Your task to perform on an android device: Google the capital of Colombia Image 0: 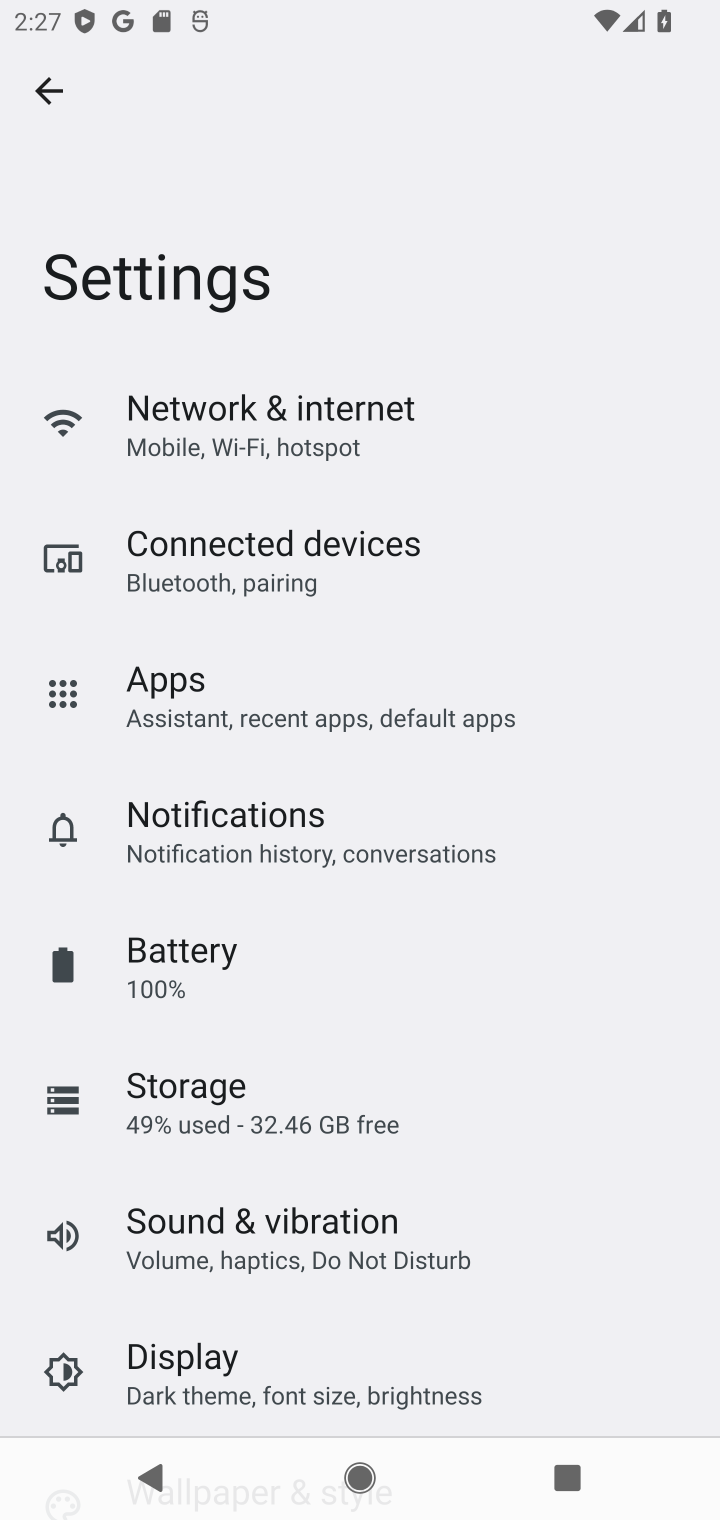
Step 0: press home button
Your task to perform on an android device: Google the capital of Colombia Image 1: 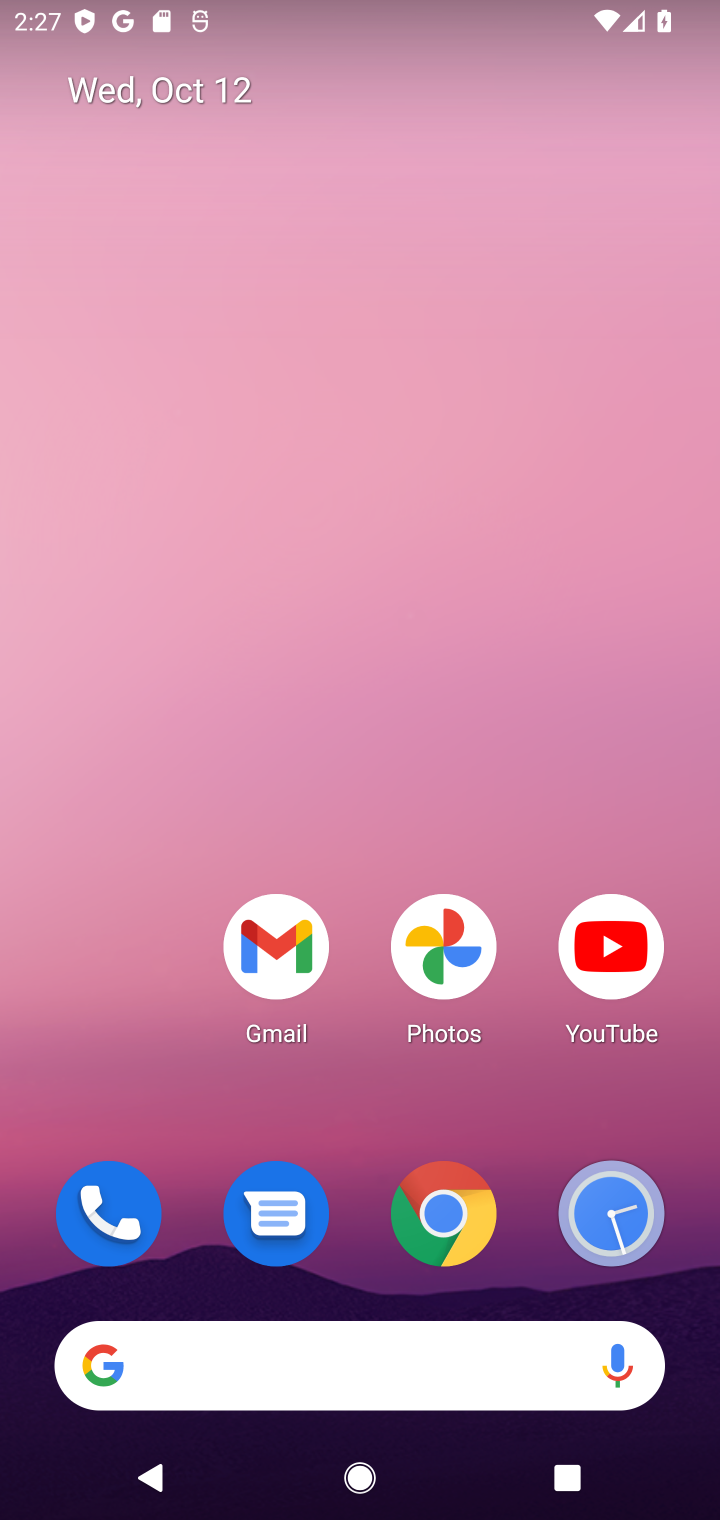
Step 1: click (265, 1374)
Your task to perform on an android device: Google the capital of Colombia Image 2: 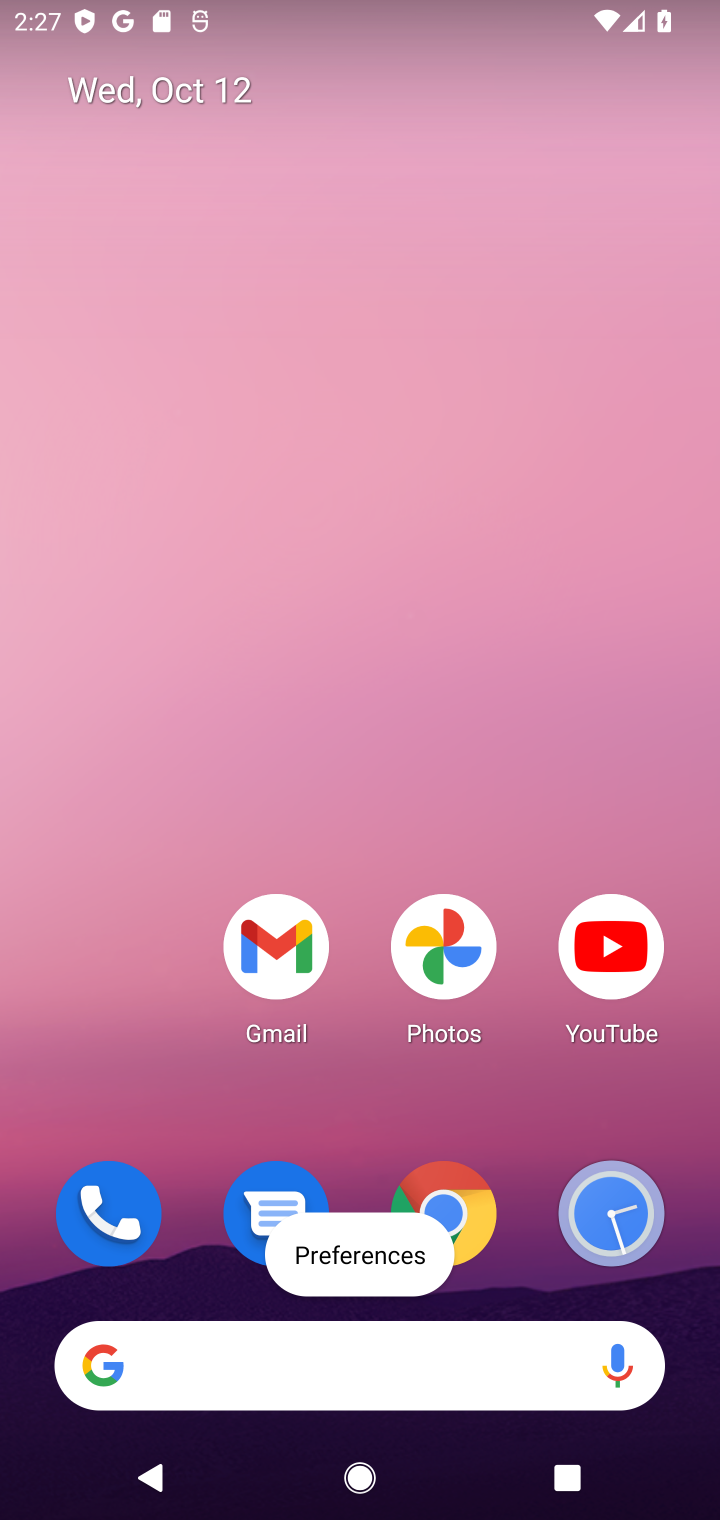
Step 2: click (265, 1374)
Your task to perform on an android device: Google the capital of Colombia Image 3: 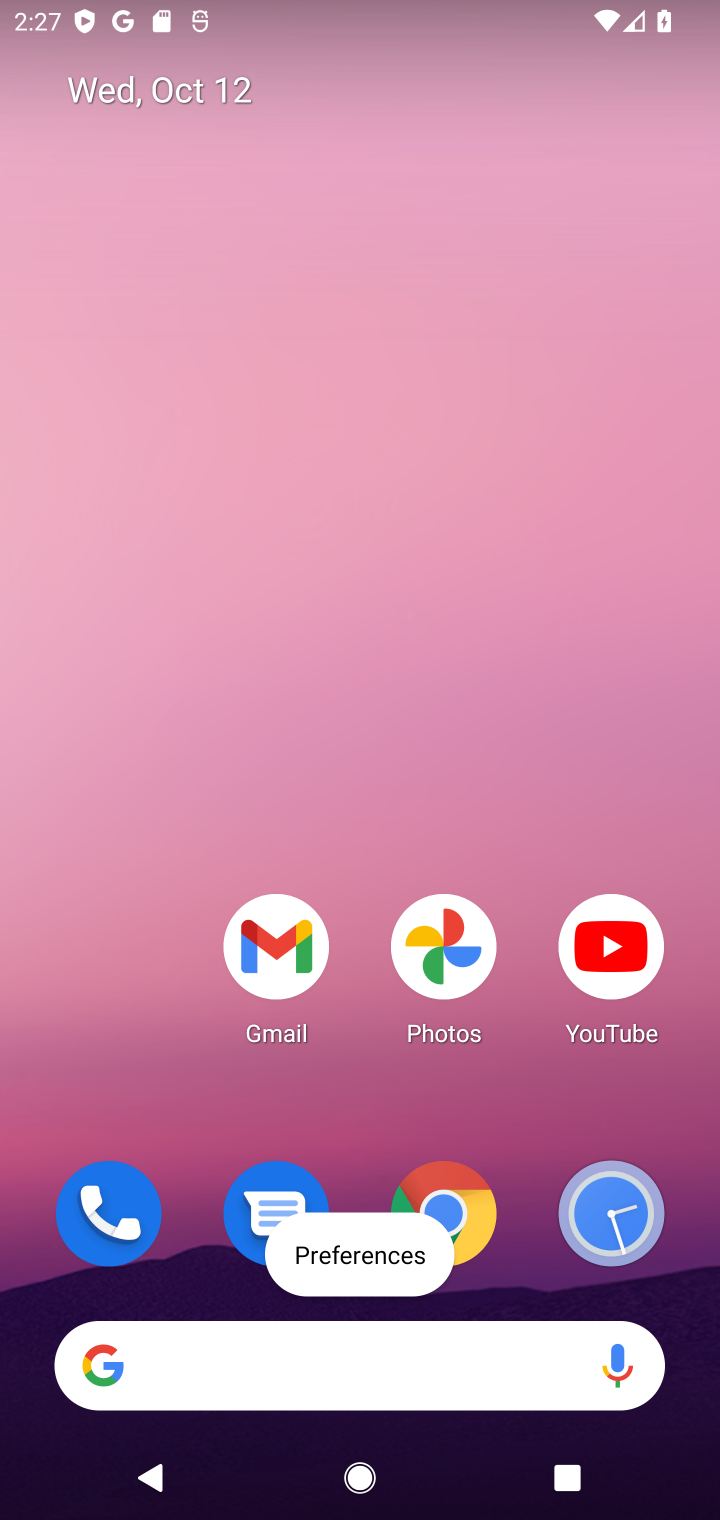
Step 3: click (315, 1373)
Your task to perform on an android device: Google the capital of Colombia Image 4: 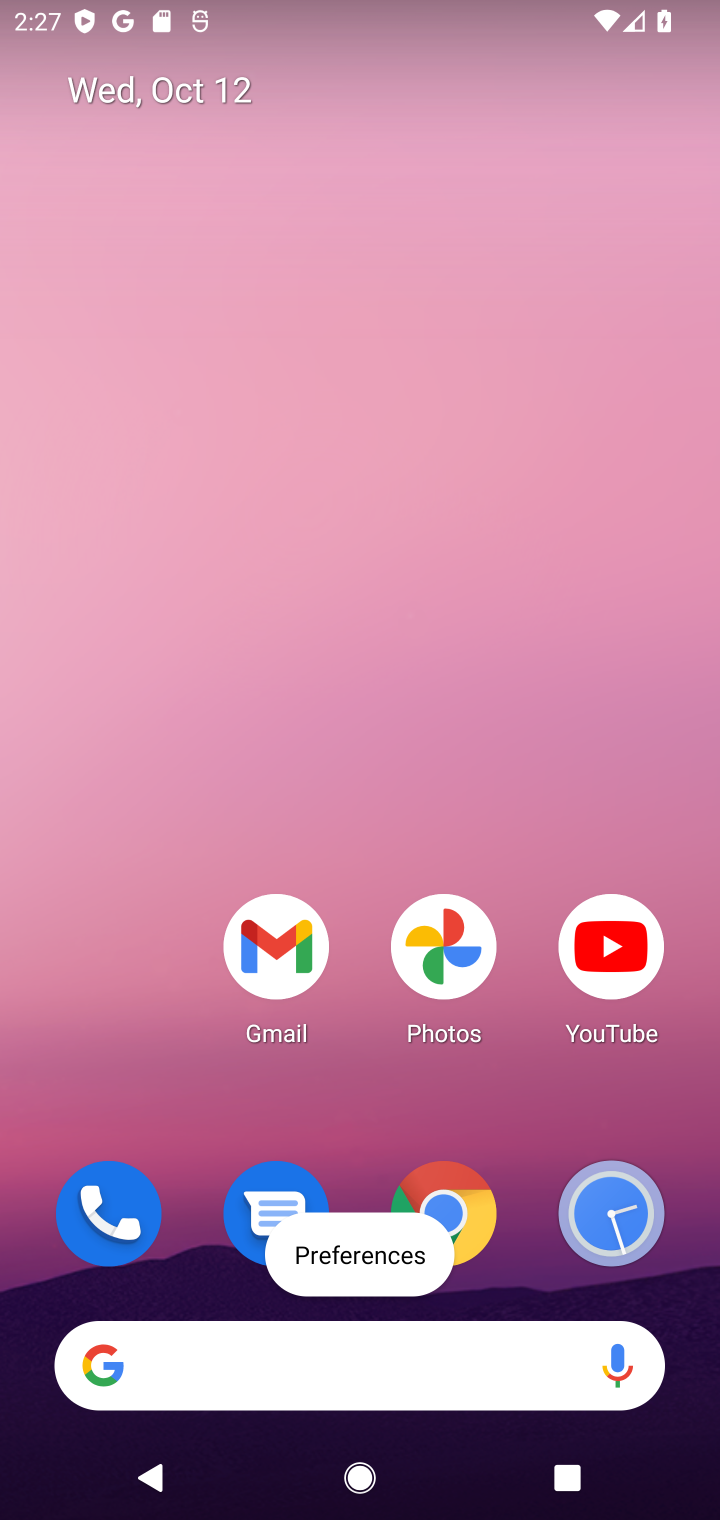
Step 4: click (232, 1369)
Your task to perform on an android device: Google the capital of Colombia Image 5: 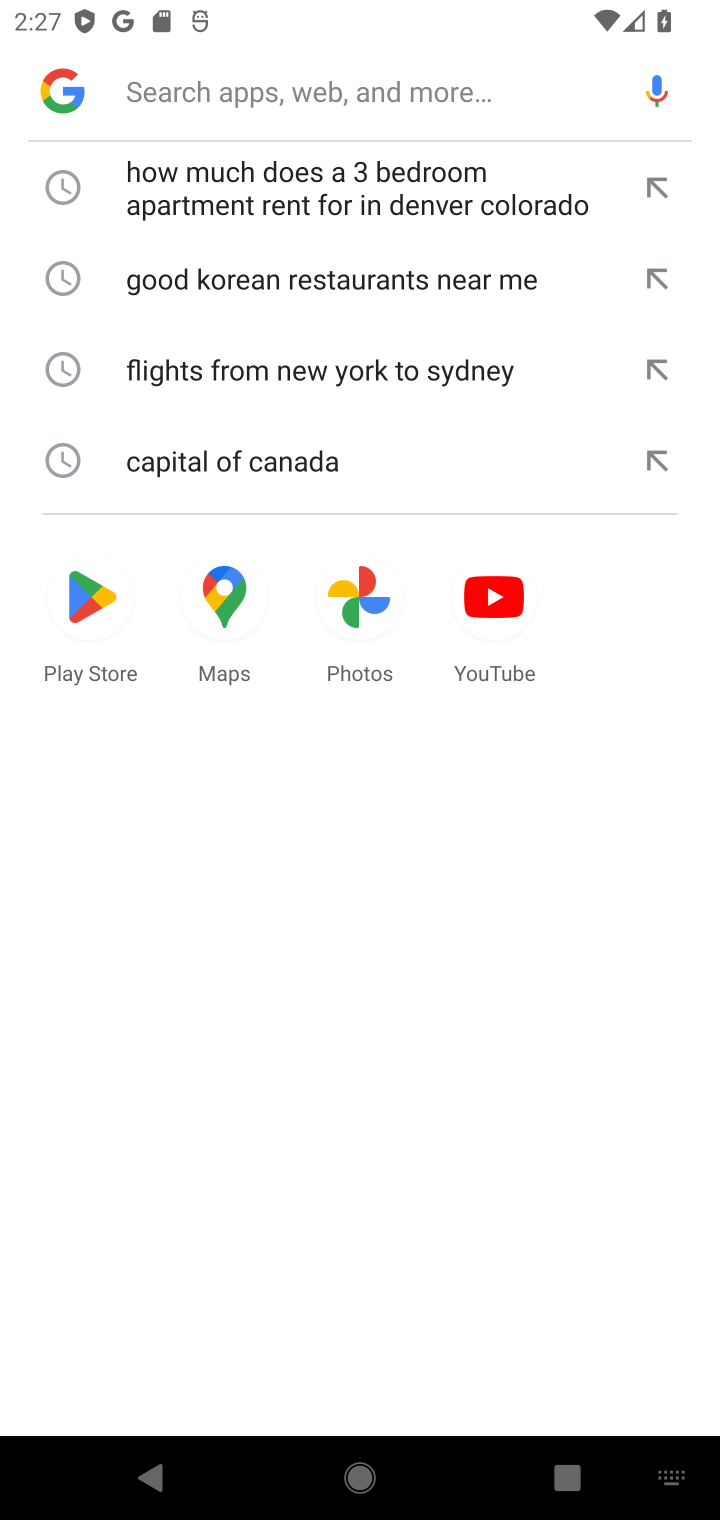
Step 5: click (320, 79)
Your task to perform on an android device: Google the capital of Colombia Image 6: 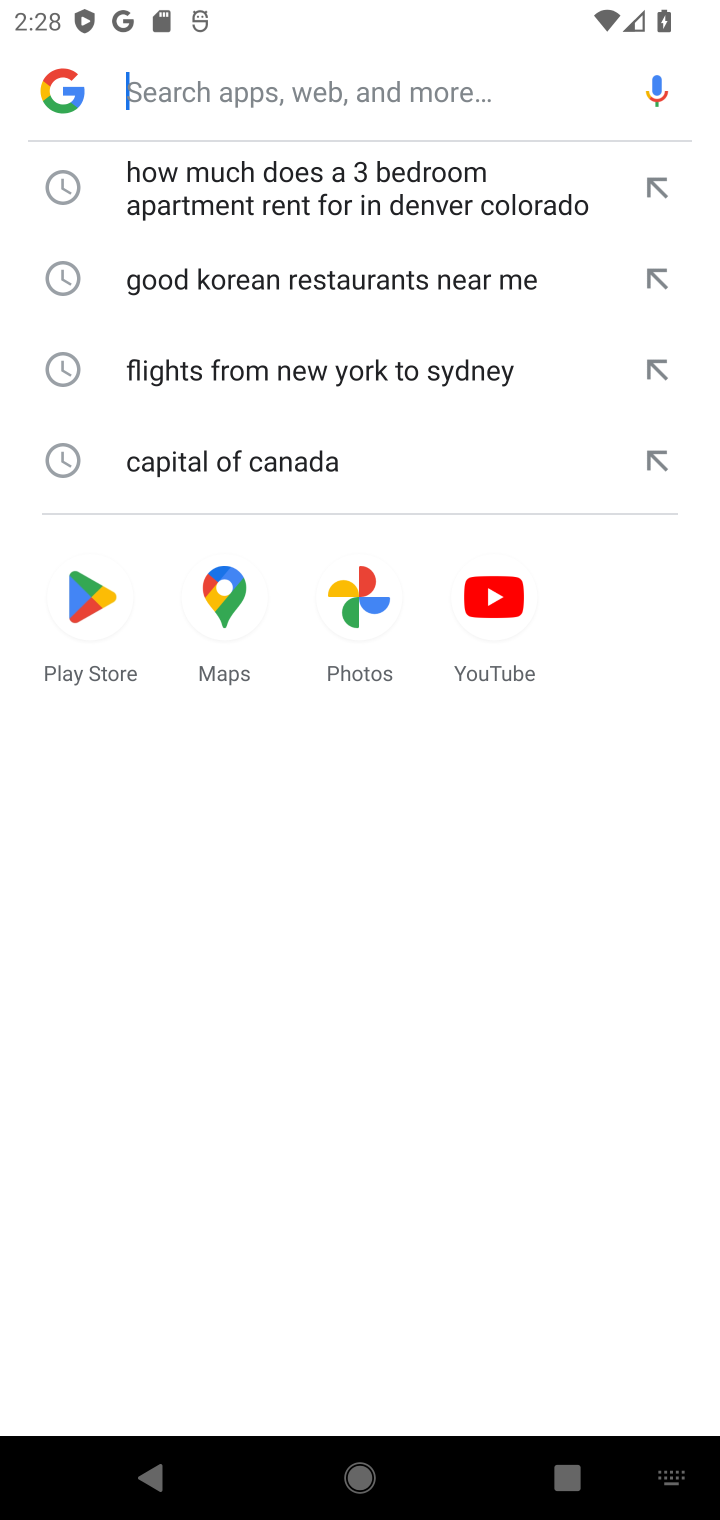
Step 6: type " capital of Colombia"
Your task to perform on an android device: Google the capital of Colombia Image 7: 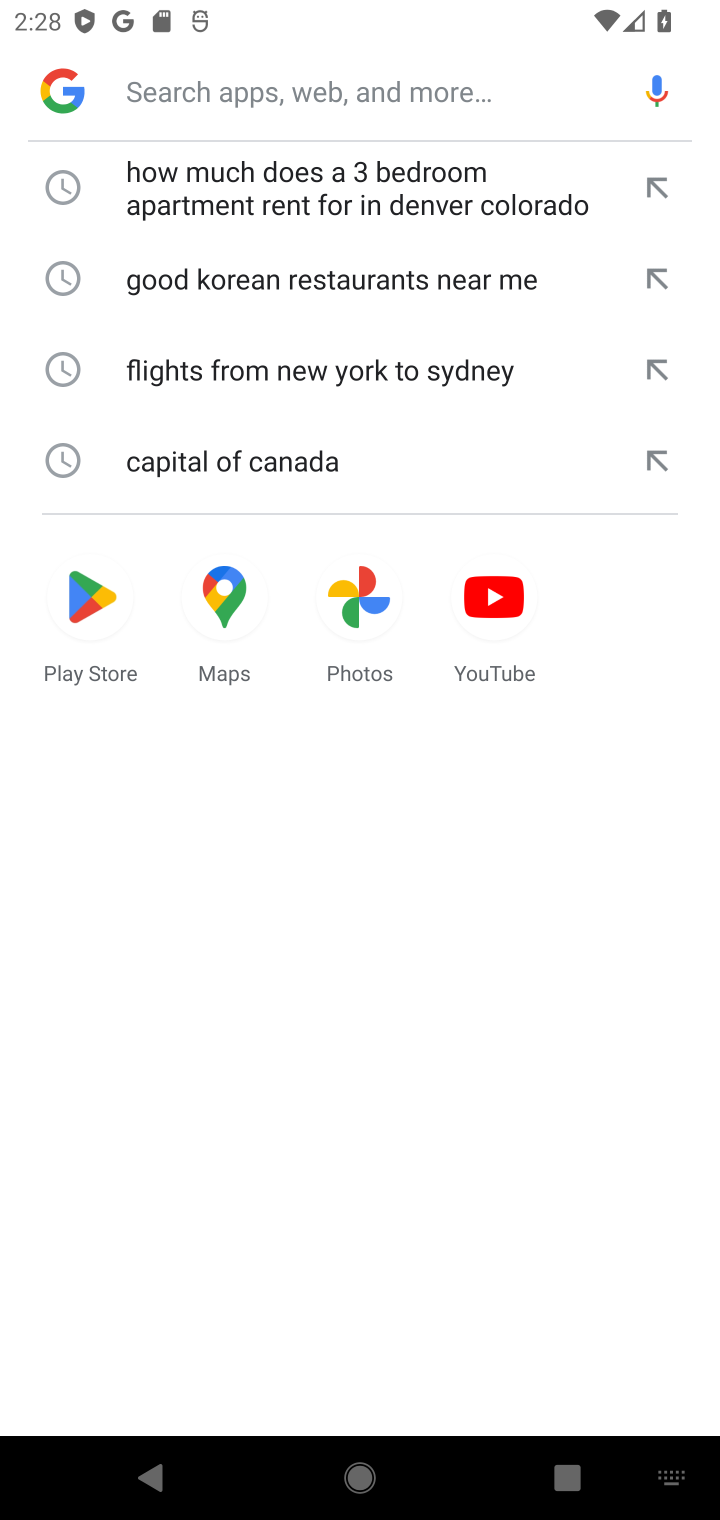
Step 7: click (327, 1260)
Your task to perform on an android device: Google the capital of Colombia Image 8: 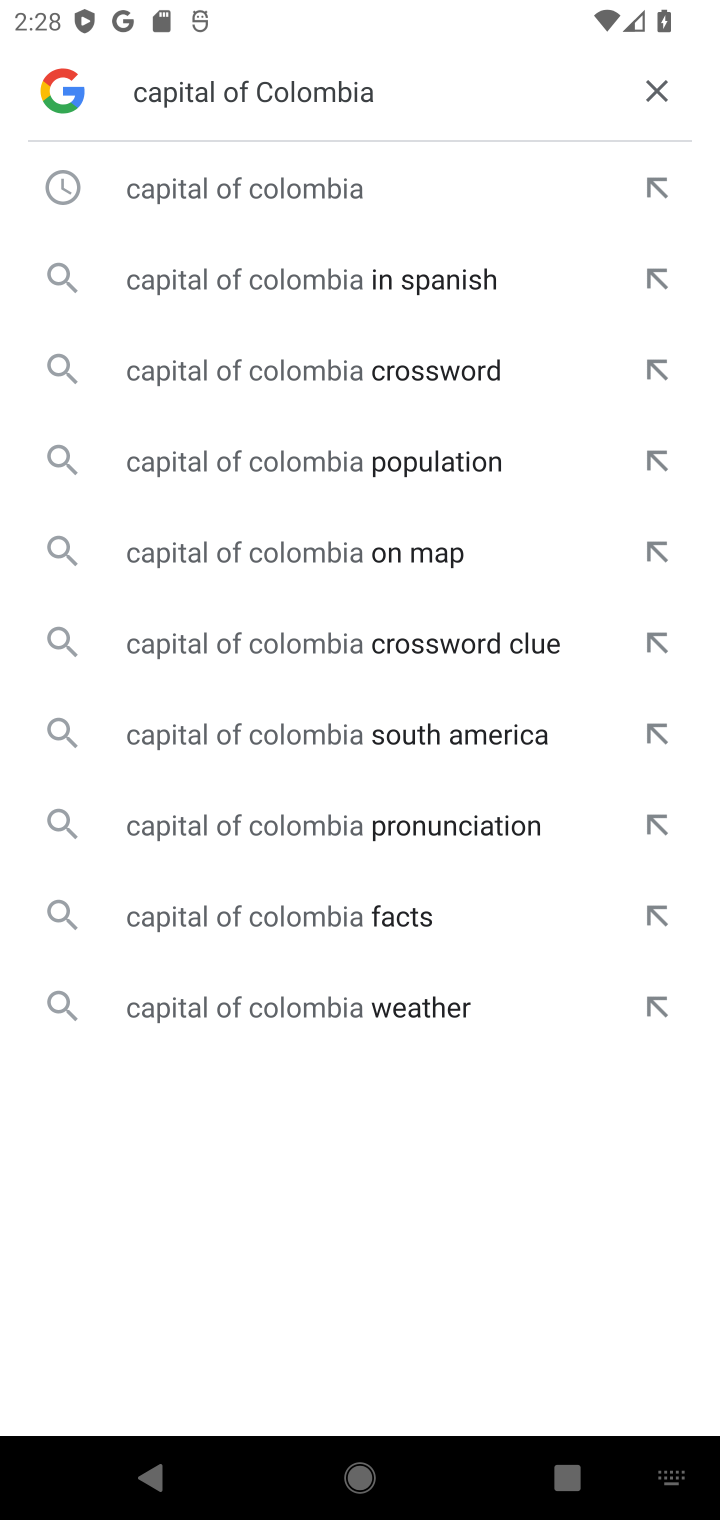
Step 8: click (293, 194)
Your task to perform on an android device: Google the capital of Colombia Image 9: 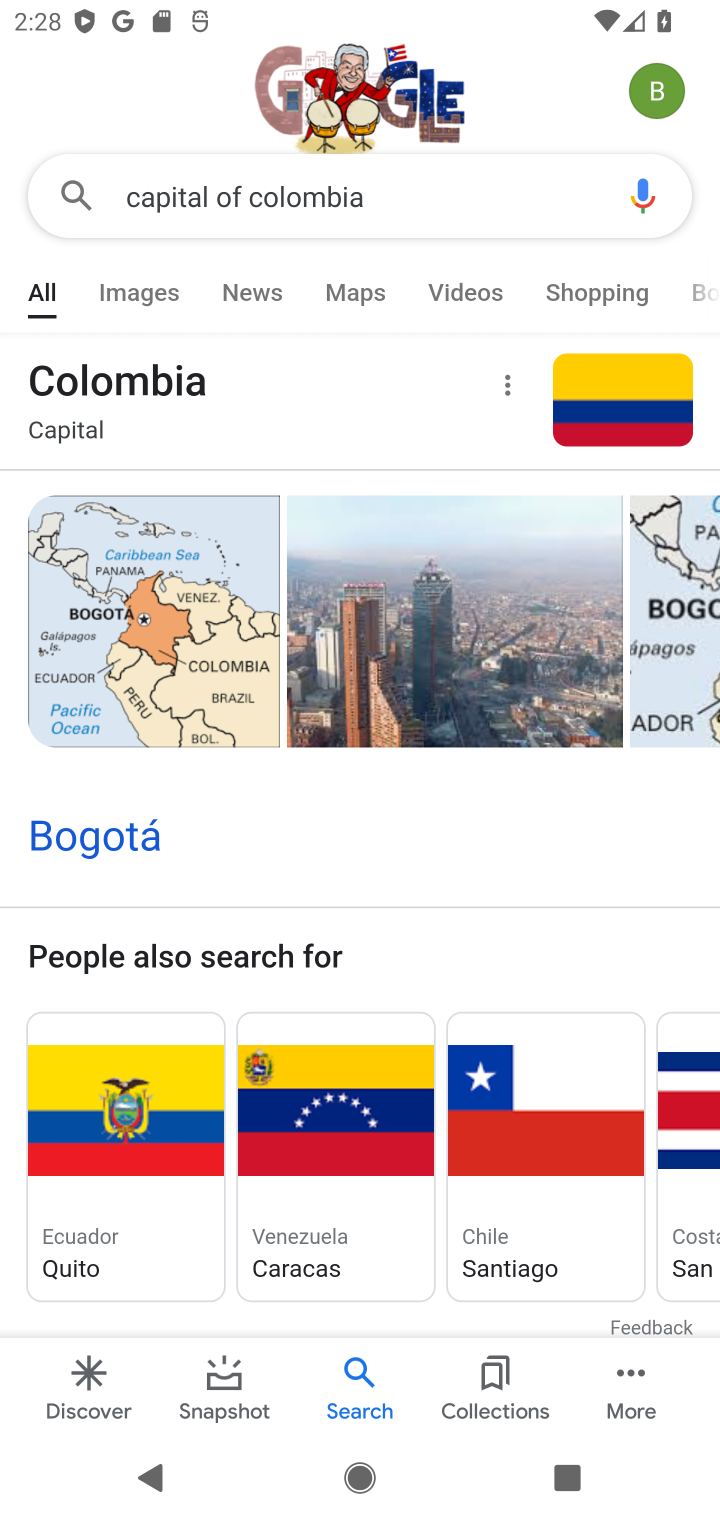
Step 9: task complete